Your task to perform on an android device: visit the assistant section in the google photos Image 0: 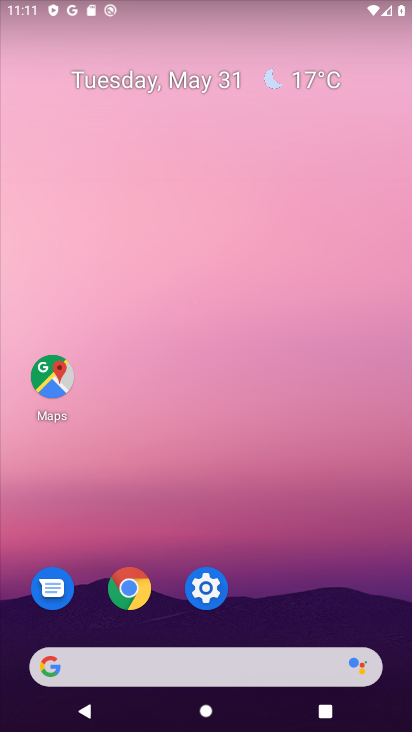
Step 0: press home button
Your task to perform on an android device: visit the assistant section in the google photos Image 1: 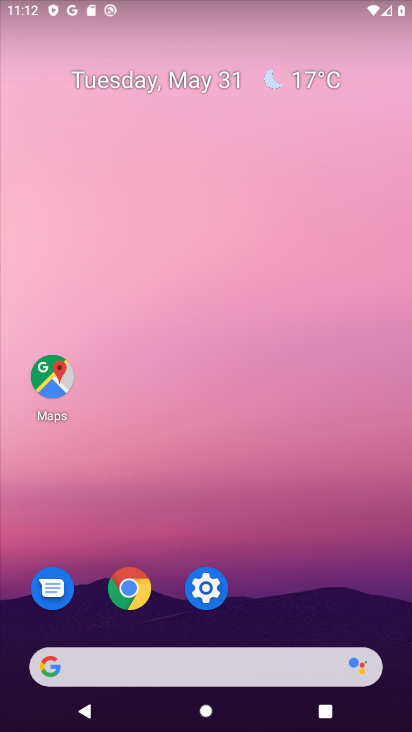
Step 1: drag from (224, 692) to (348, 165)
Your task to perform on an android device: visit the assistant section in the google photos Image 2: 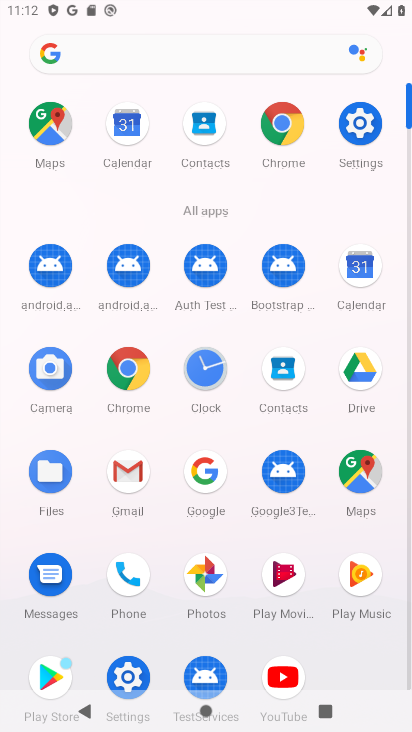
Step 2: click (220, 577)
Your task to perform on an android device: visit the assistant section in the google photos Image 3: 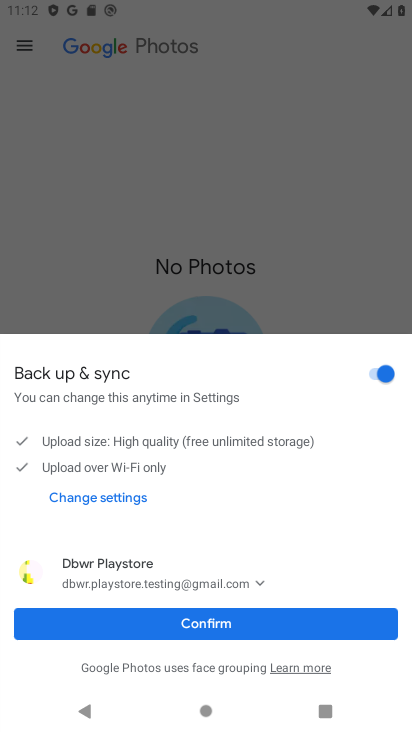
Step 3: click (157, 623)
Your task to perform on an android device: visit the assistant section in the google photos Image 4: 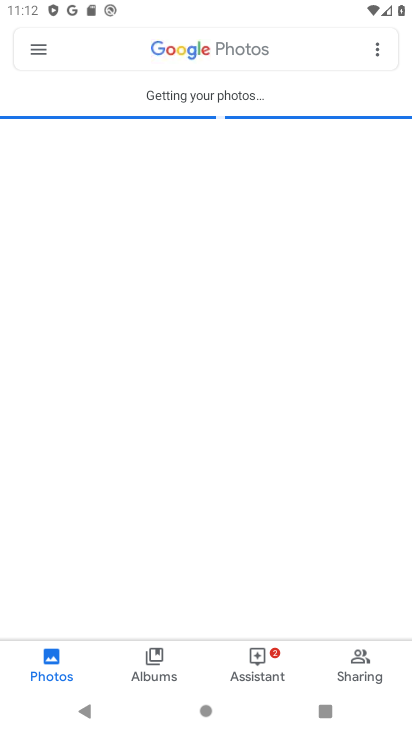
Step 4: click (243, 673)
Your task to perform on an android device: visit the assistant section in the google photos Image 5: 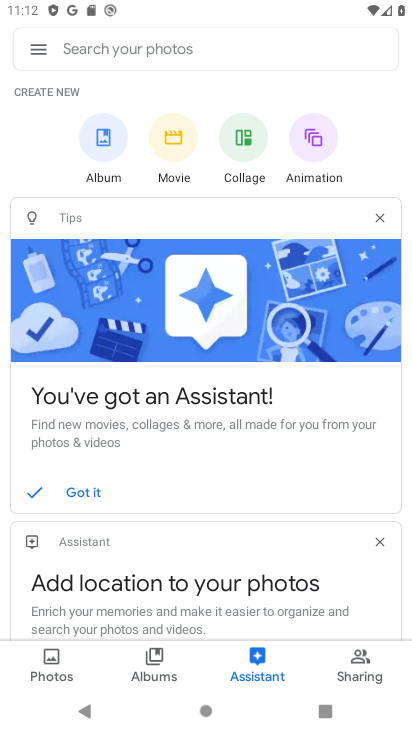
Step 5: task complete